Your task to perform on an android device: Open eBay Image 0: 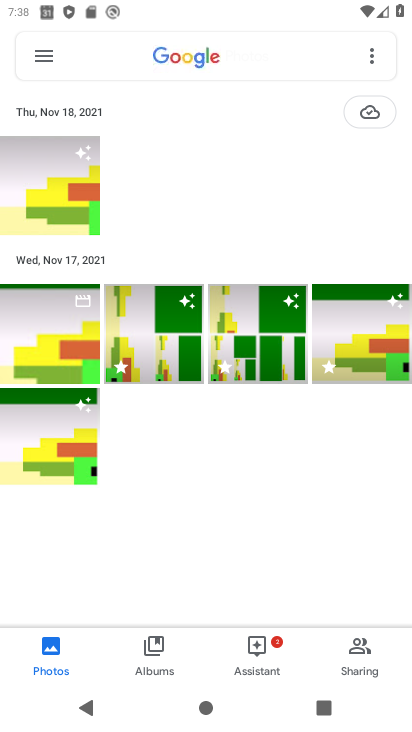
Step 0: press back button
Your task to perform on an android device: Open eBay Image 1: 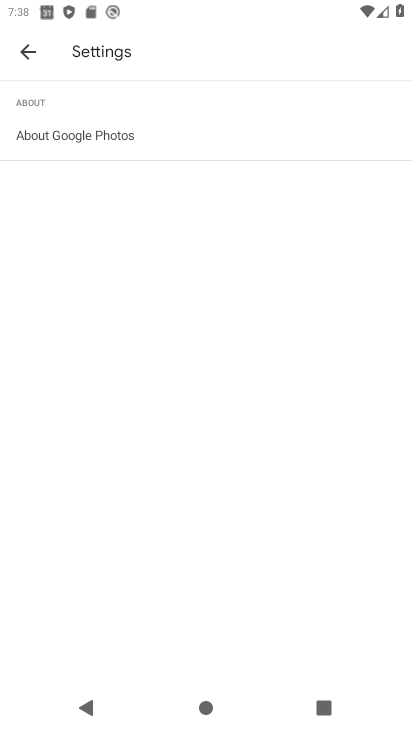
Step 1: press back button
Your task to perform on an android device: Open eBay Image 2: 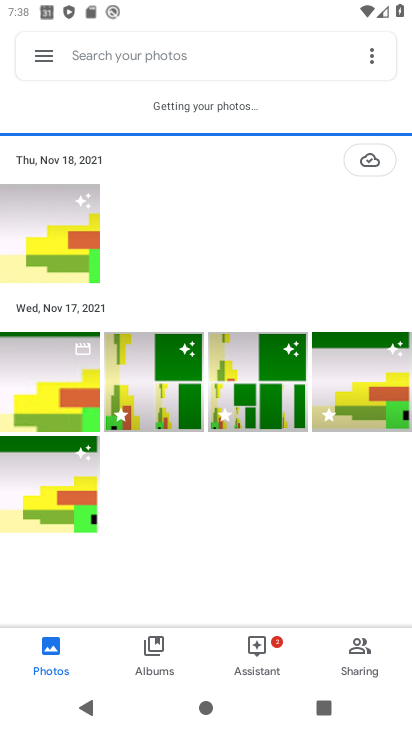
Step 2: press back button
Your task to perform on an android device: Open eBay Image 3: 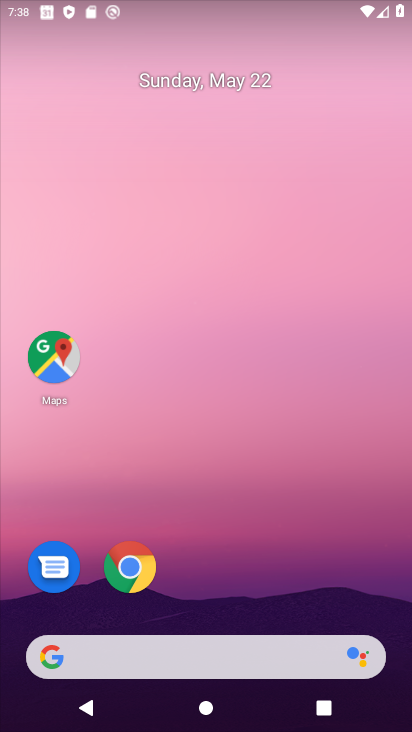
Step 3: click (134, 568)
Your task to perform on an android device: Open eBay Image 4: 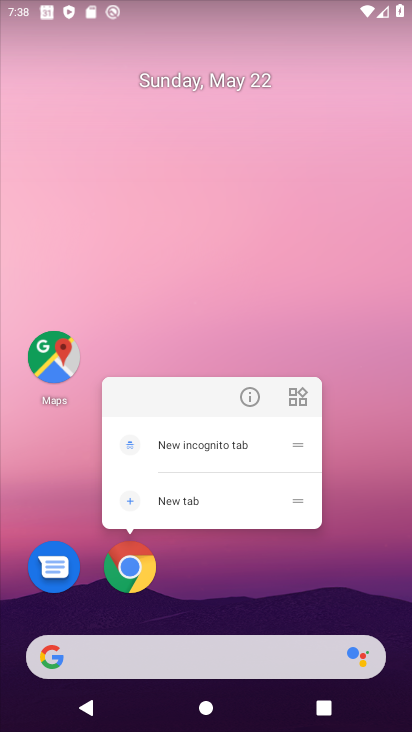
Step 4: click (131, 566)
Your task to perform on an android device: Open eBay Image 5: 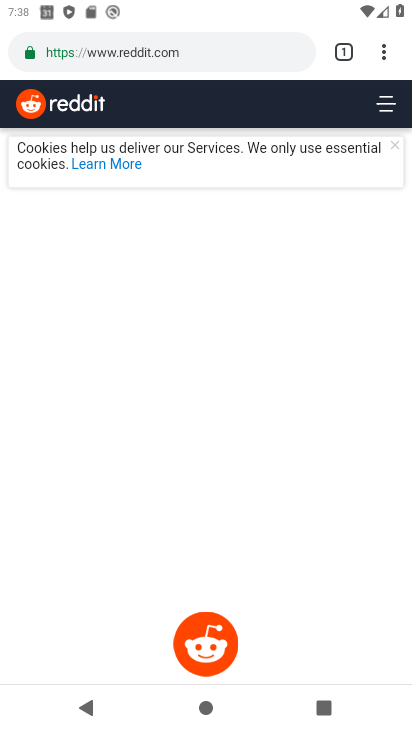
Step 5: click (346, 52)
Your task to perform on an android device: Open eBay Image 6: 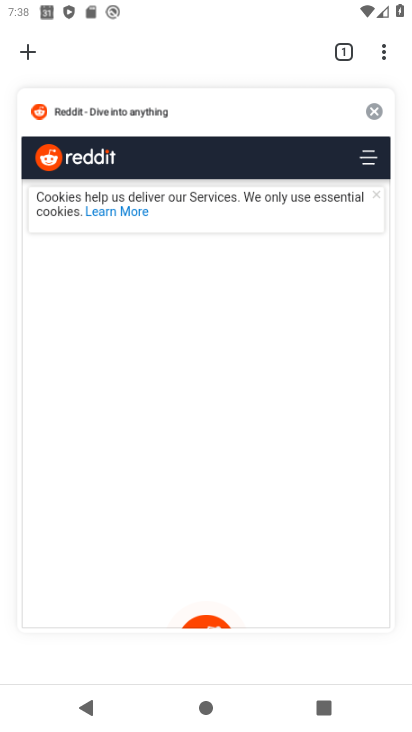
Step 6: click (27, 47)
Your task to perform on an android device: Open eBay Image 7: 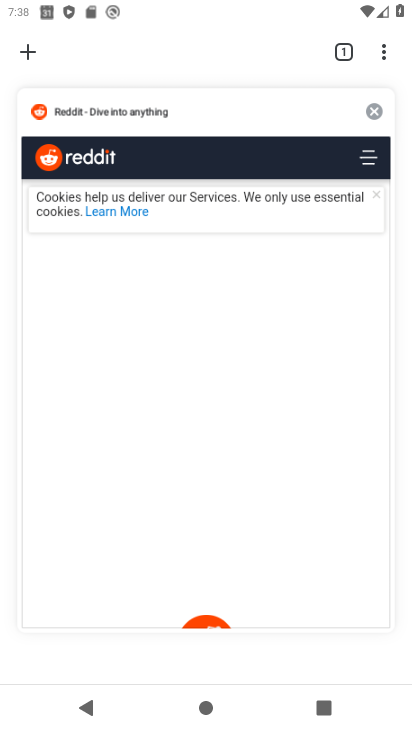
Step 7: click (24, 51)
Your task to perform on an android device: Open eBay Image 8: 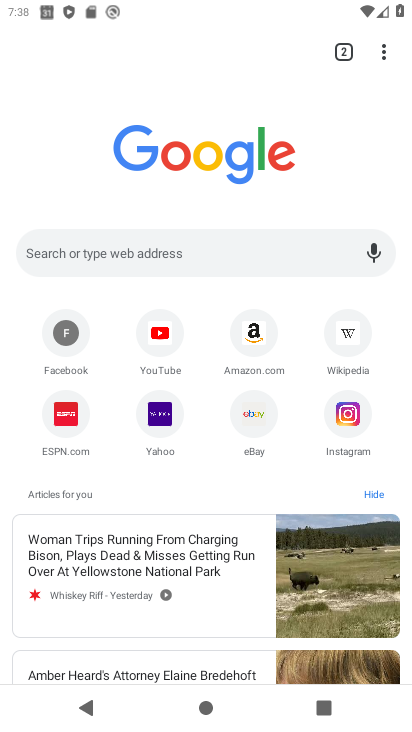
Step 8: click (113, 237)
Your task to perform on an android device: Open eBay Image 9: 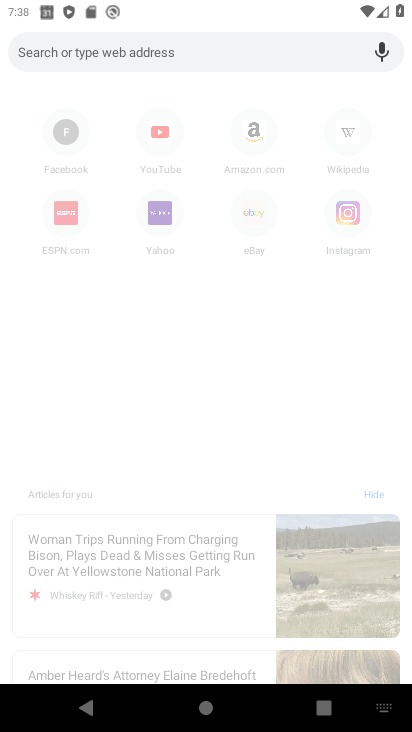
Step 9: click (253, 214)
Your task to perform on an android device: Open eBay Image 10: 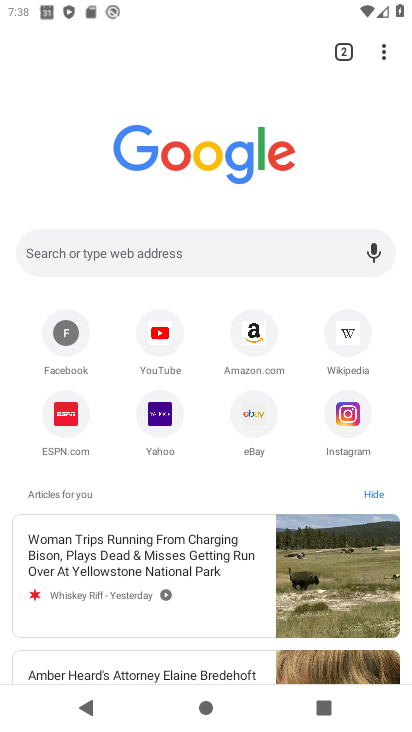
Step 10: click (255, 432)
Your task to perform on an android device: Open eBay Image 11: 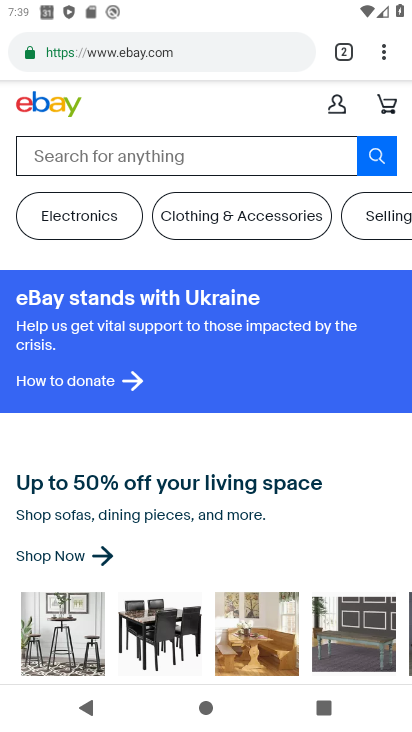
Step 11: task complete